Your task to perform on an android device: Open my contact list Image 0: 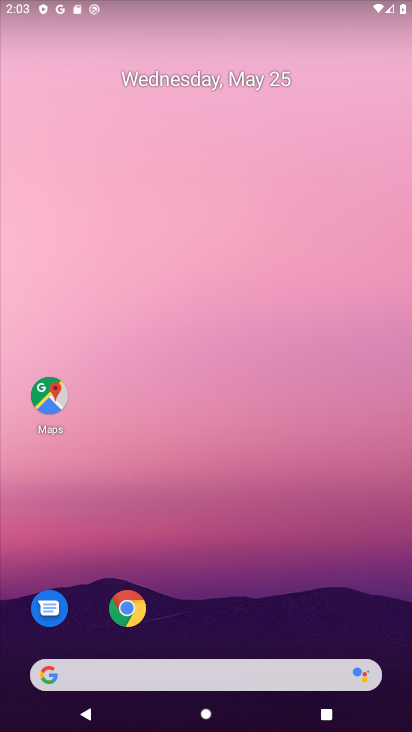
Step 0: drag from (211, 587) to (249, 266)
Your task to perform on an android device: Open my contact list Image 1: 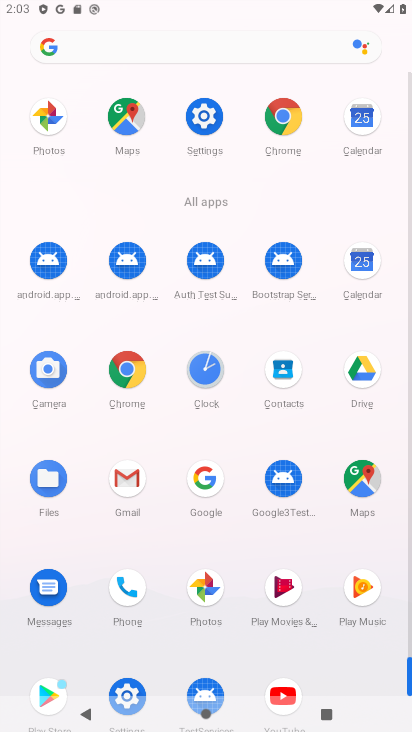
Step 1: click (130, 594)
Your task to perform on an android device: Open my contact list Image 2: 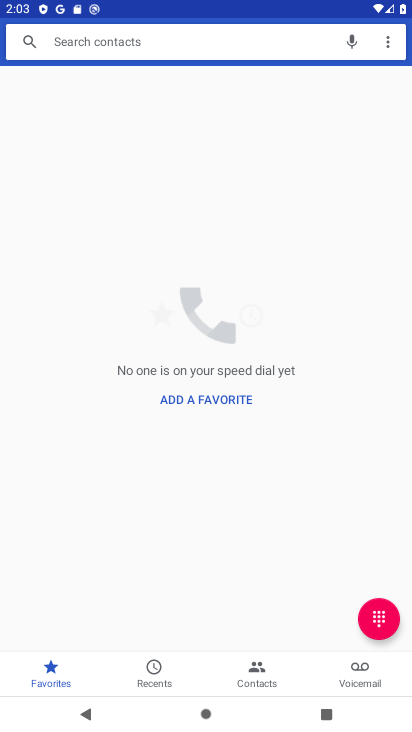
Step 2: click (254, 672)
Your task to perform on an android device: Open my contact list Image 3: 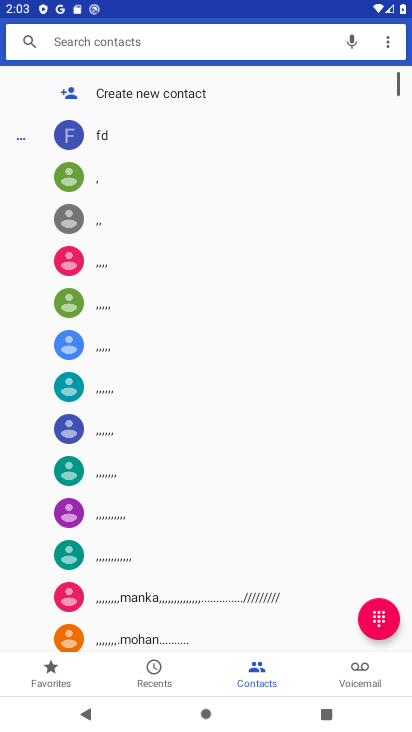
Step 3: task complete